Your task to perform on an android device: toggle notifications settings in the gmail app Image 0: 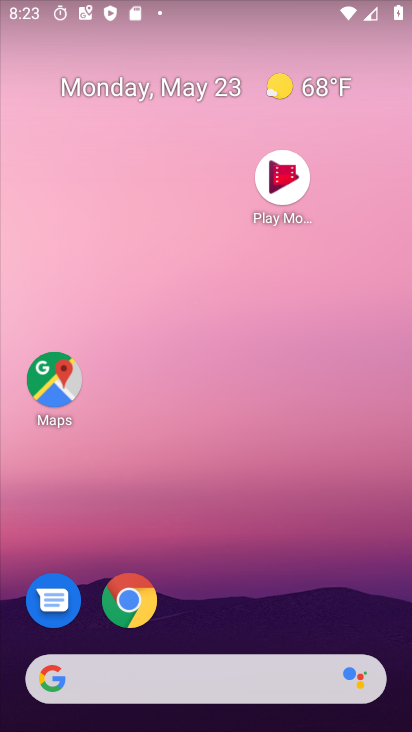
Step 0: click (209, 81)
Your task to perform on an android device: toggle notifications settings in the gmail app Image 1: 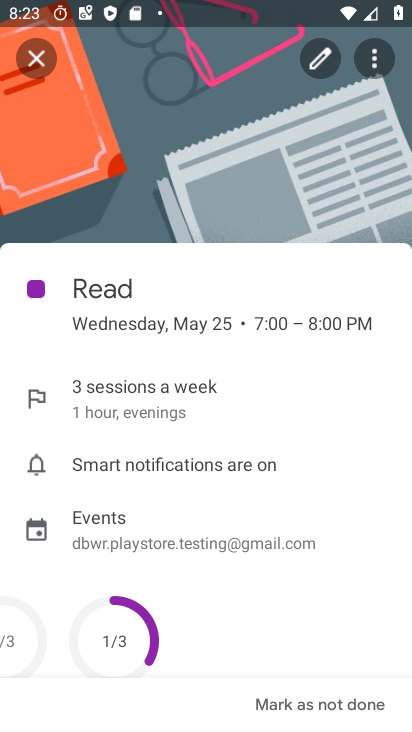
Step 1: press back button
Your task to perform on an android device: toggle notifications settings in the gmail app Image 2: 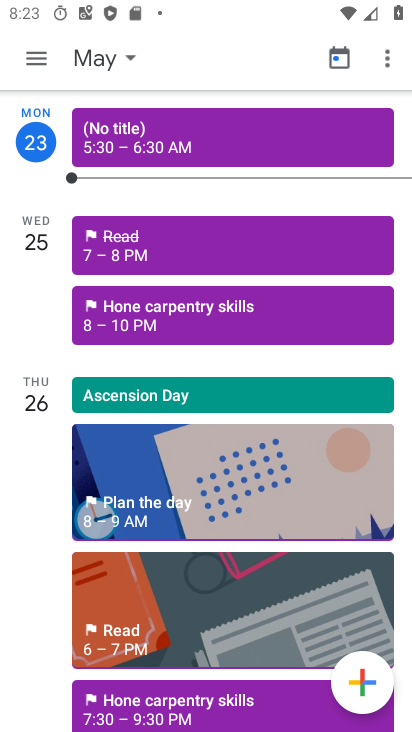
Step 2: press home button
Your task to perform on an android device: toggle notifications settings in the gmail app Image 3: 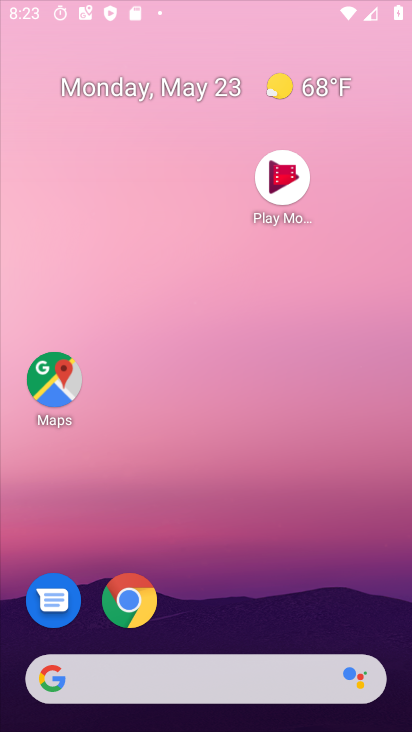
Step 3: press back button
Your task to perform on an android device: toggle notifications settings in the gmail app Image 4: 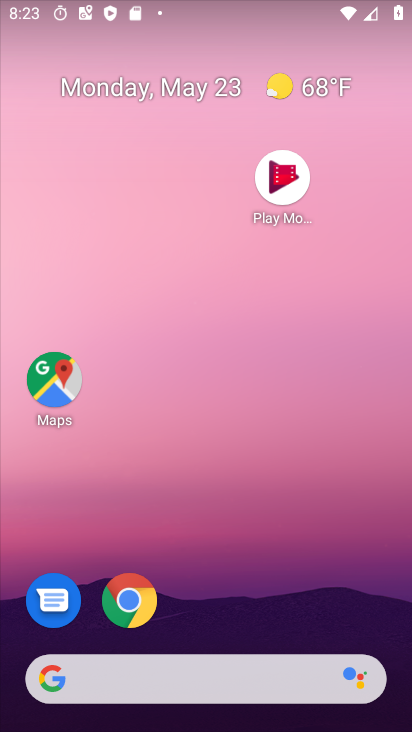
Step 4: drag from (274, 704) to (228, 58)
Your task to perform on an android device: toggle notifications settings in the gmail app Image 5: 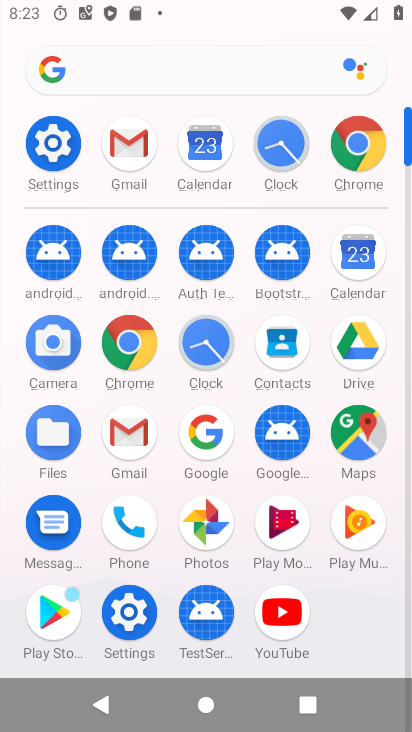
Step 5: click (125, 437)
Your task to perform on an android device: toggle notifications settings in the gmail app Image 6: 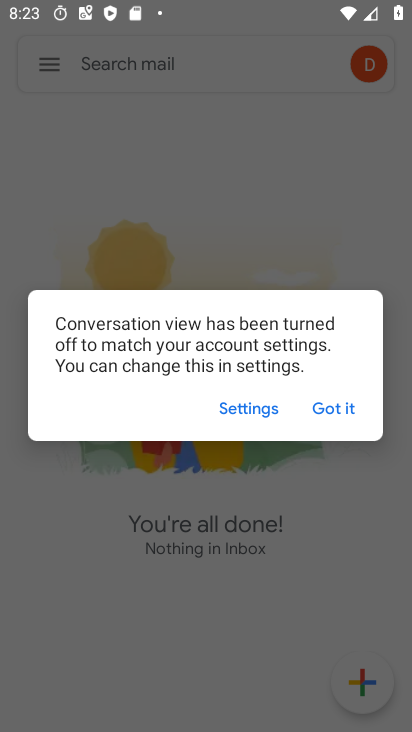
Step 6: click (328, 406)
Your task to perform on an android device: toggle notifications settings in the gmail app Image 7: 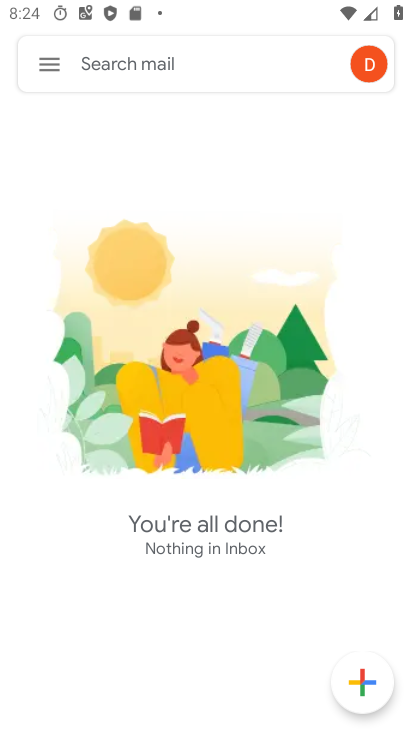
Step 7: click (53, 65)
Your task to perform on an android device: toggle notifications settings in the gmail app Image 8: 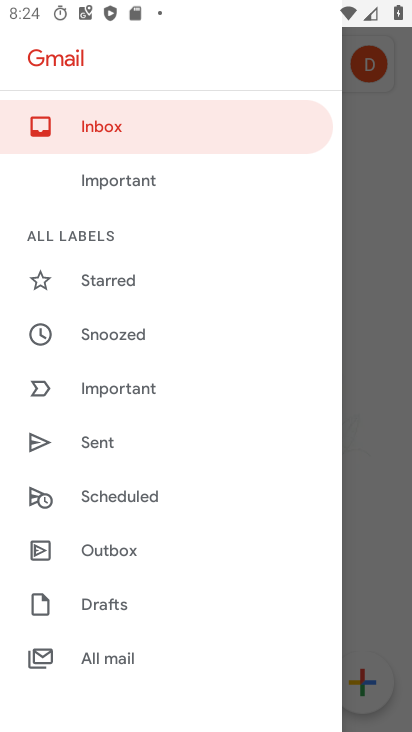
Step 8: drag from (121, 591) to (131, 17)
Your task to perform on an android device: toggle notifications settings in the gmail app Image 9: 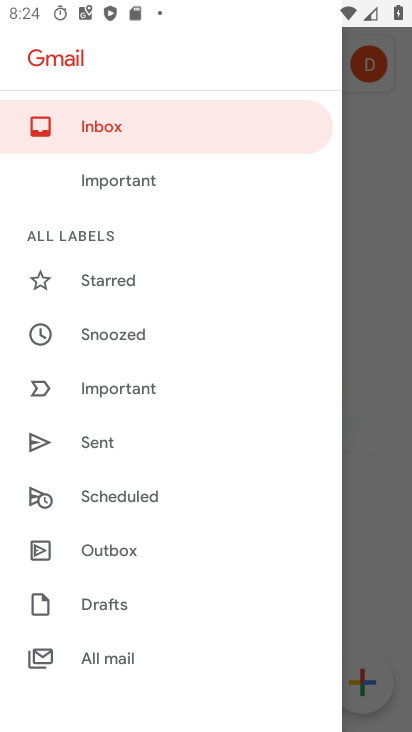
Step 9: drag from (107, 547) to (113, 120)
Your task to perform on an android device: toggle notifications settings in the gmail app Image 10: 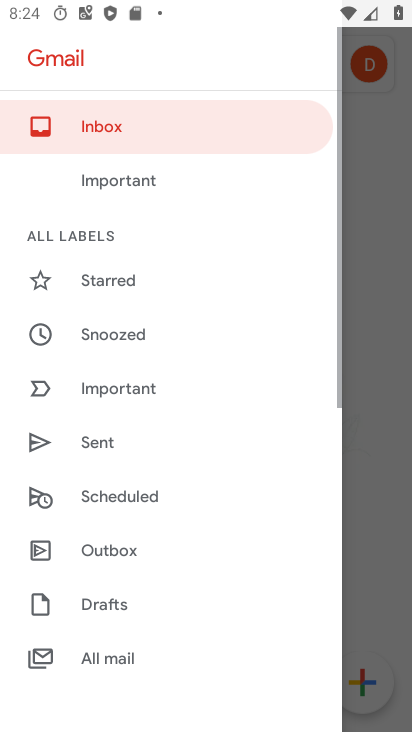
Step 10: drag from (145, 356) to (145, 54)
Your task to perform on an android device: toggle notifications settings in the gmail app Image 11: 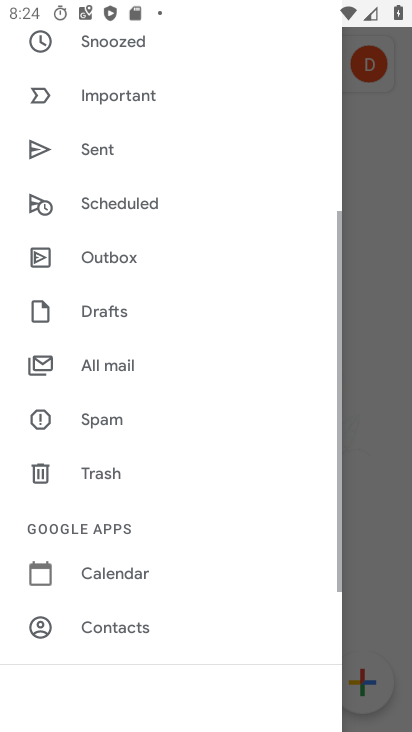
Step 11: drag from (136, 563) to (107, 67)
Your task to perform on an android device: toggle notifications settings in the gmail app Image 12: 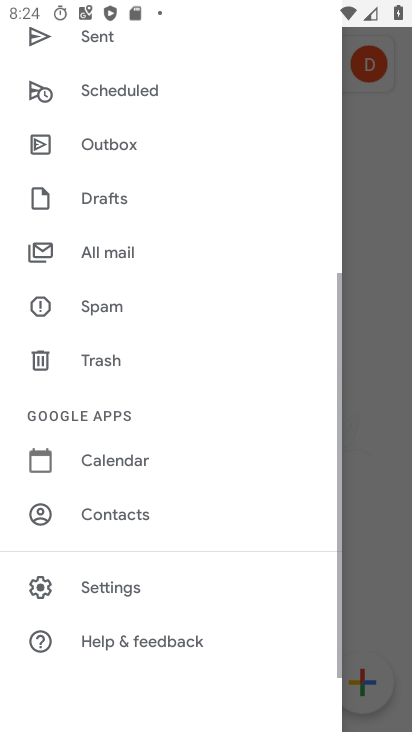
Step 12: click (114, 589)
Your task to perform on an android device: toggle notifications settings in the gmail app Image 13: 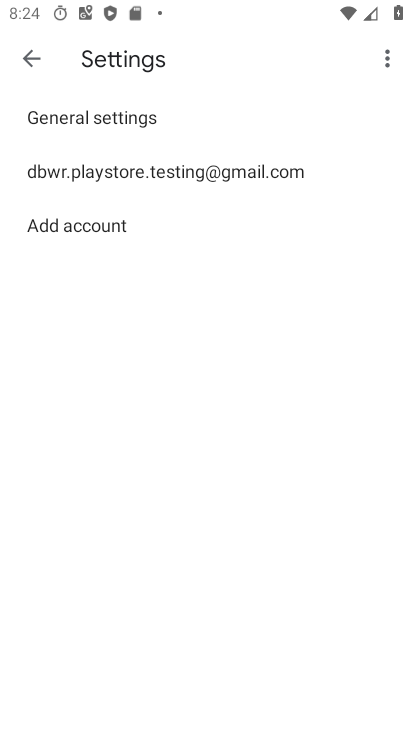
Step 13: click (156, 166)
Your task to perform on an android device: toggle notifications settings in the gmail app Image 14: 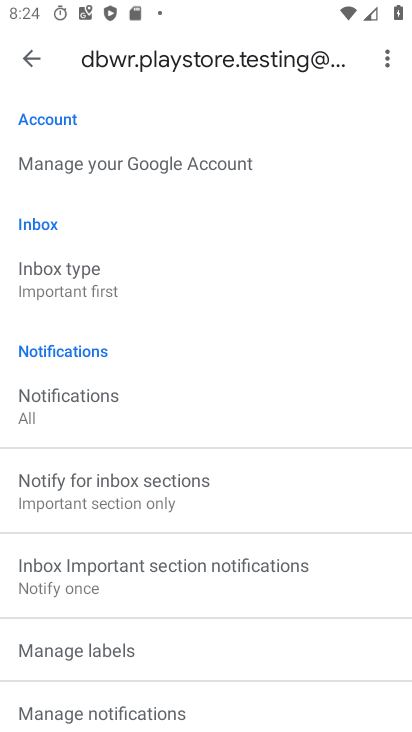
Step 14: drag from (155, 559) to (93, 1)
Your task to perform on an android device: toggle notifications settings in the gmail app Image 15: 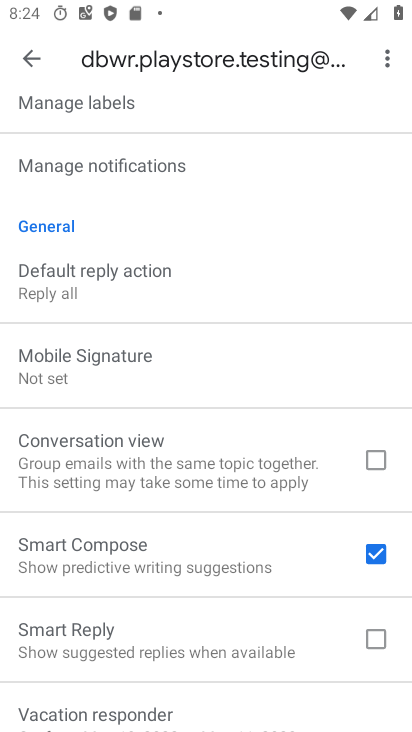
Step 15: drag from (136, 569) to (106, 209)
Your task to perform on an android device: toggle notifications settings in the gmail app Image 16: 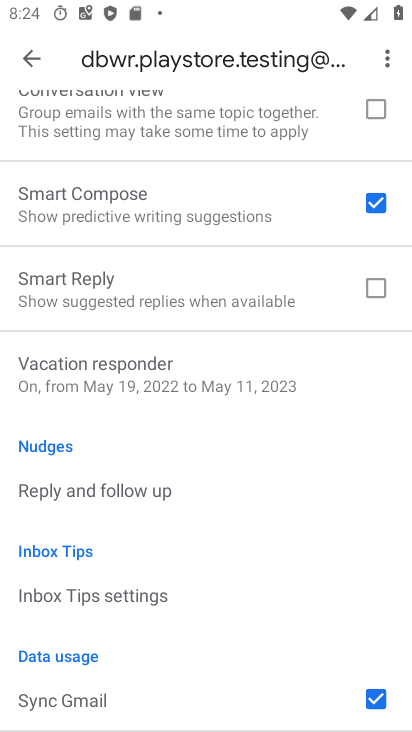
Step 16: drag from (162, 553) to (163, 138)
Your task to perform on an android device: toggle notifications settings in the gmail app Image 17: 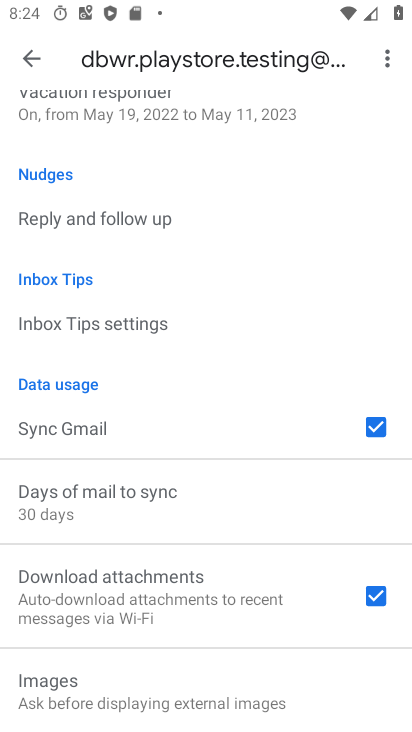
Step 17: drag from (161, 603) to (148, 110)
Your task to perform on an android device: toggle notifications settings in the gmail app Image 18: 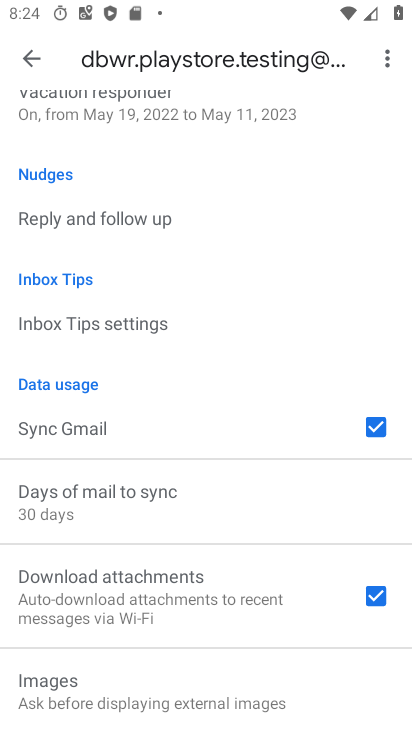
Step 18: drag from (106, 180) to (171, 553)
Your task to perform on an android device: toggle notifications settings in the gmail app Image 19: 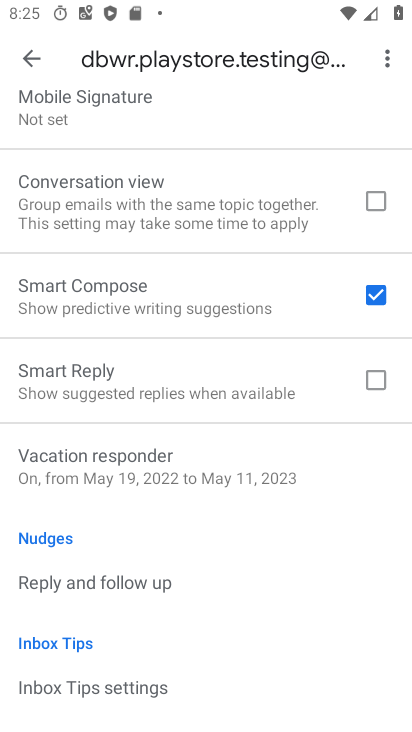
Step 19: drag from (157, 232) to (244, 645)
Your task to perform on an android device: toggle notifications settings in the gmail app Image 20: 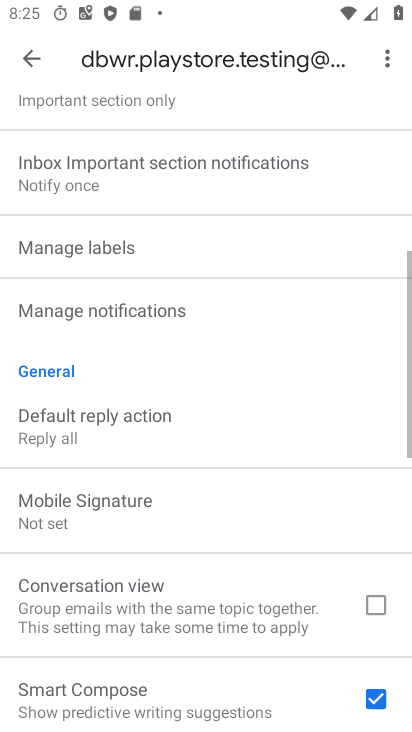
Step 20: drag from (121, 109) to (134, 555)
Your task to perform on an android device: toggle notifications settings in the gmail app Image 21: 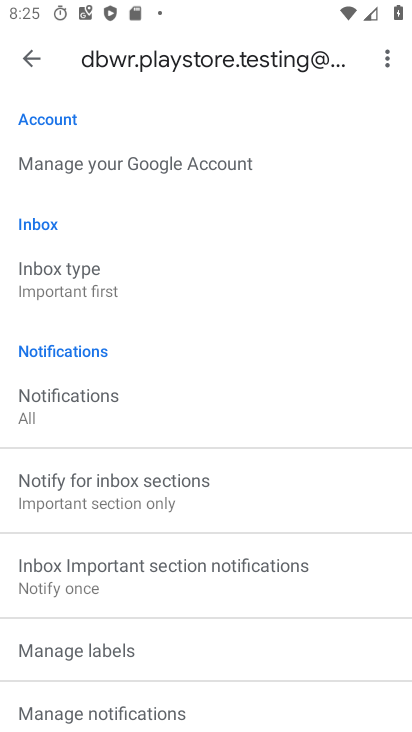
Step 21: click (58, 395)
Your task to perform on an android device: toggle notifications settings in the gmail app Image 22: 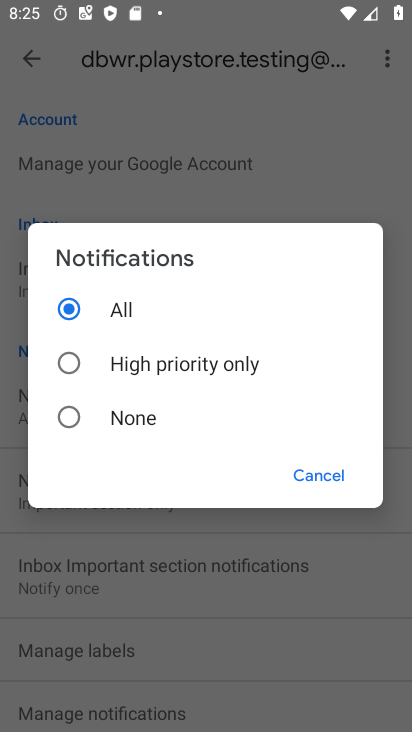
Step 22: click (68, 354)
Your task to perform on an android device: toggle notifications settings in the gmail app Image 23: 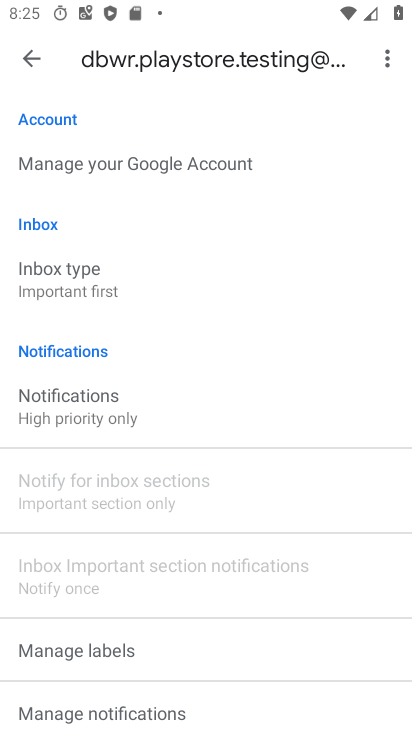
Step 23: task complete